Your task to perform on an android device: Open Chrome and go to the settings page Image 0: 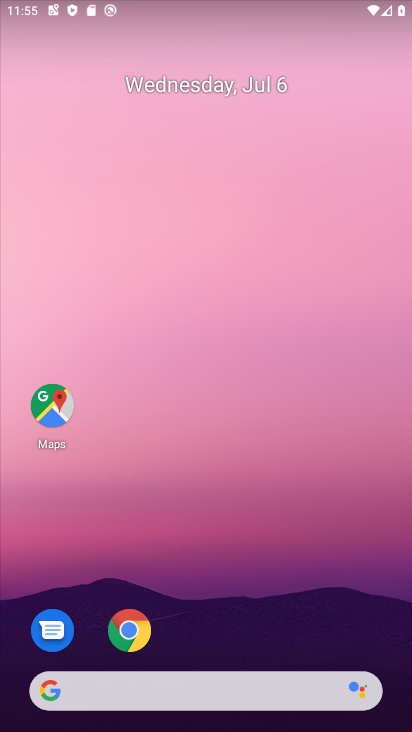
Step 0: drag from (270, 592) to (40, 223)
Your task to perform on an android device: Open Chrome and go to the settings page Image 1: 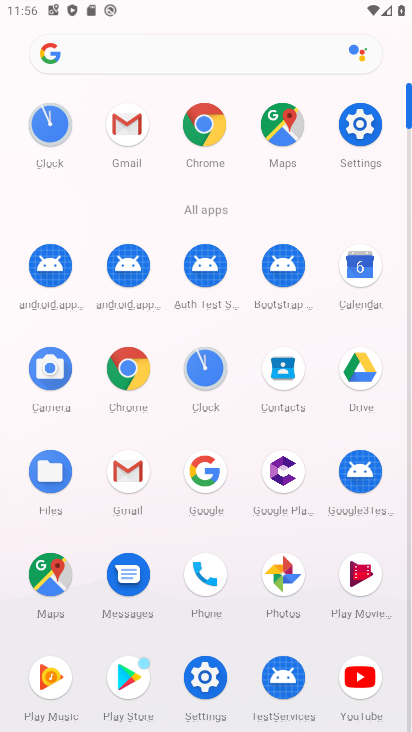
Step 1: click (127, 377)
Your task to perform on an android device: Open Chrome and go to the settings page Image 2: 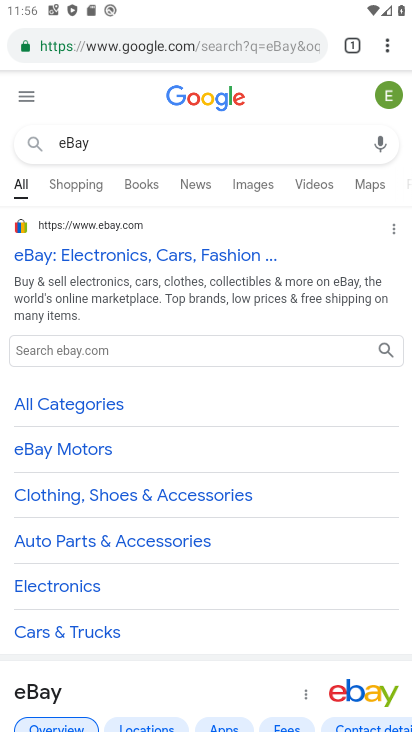
Step 2: click (391, 50)
Your task to perform on an android device: Open Chrome and go to the settings page Image 3: 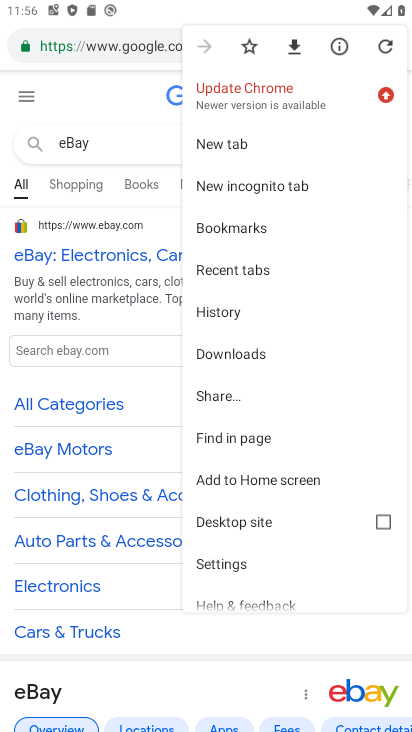
Step 3: click (230, 569)
Your task to perform on an android device: Open Chrome and go to the settings page Image 4: 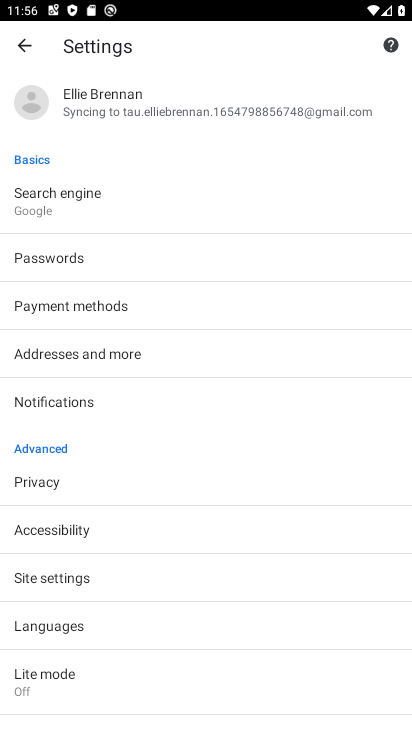
Step 4: task complete